Your task to perform on an android device: set the stopwatch Image 0: 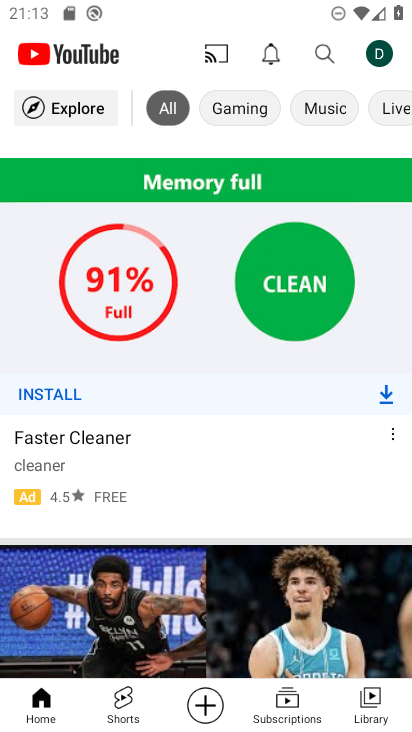
Step 0: press home button
Your task to perform on an android device: set the stopwatch Image 1: 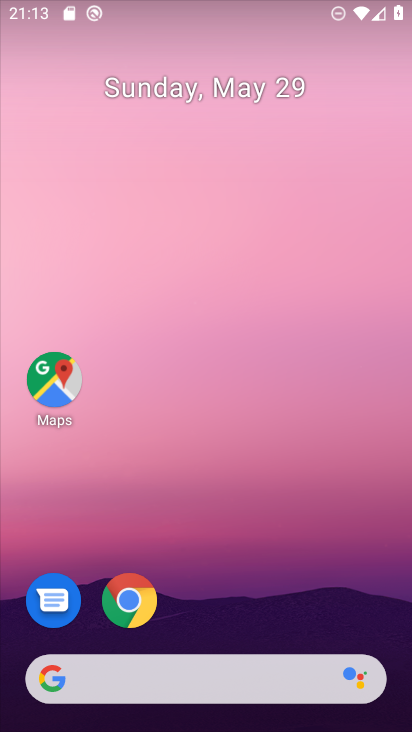
Step 1: drag from (327, 501) to (326, 107)
Your task to perform on an android device: set the stopwatch Image 2: 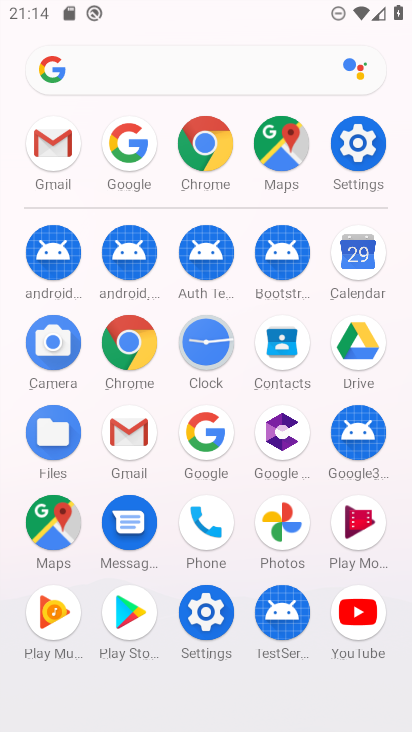
Step 2: click (210, 341)
Your task to perform on an android device: set the stopwatch Image 3: 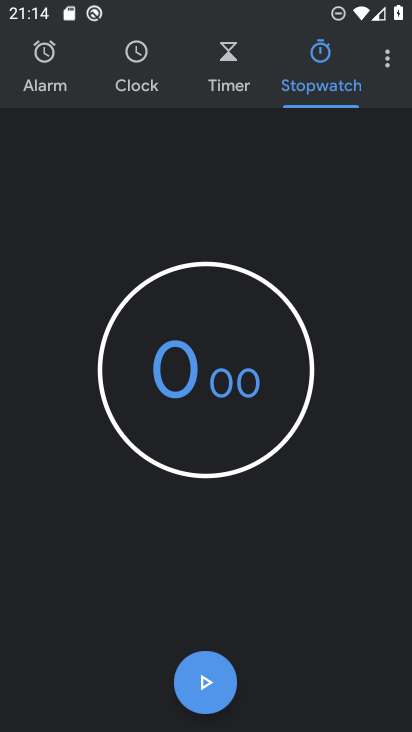
Step 3: click (209, 700)
Your task to perform on an android device: set the stopwatch Image 4: 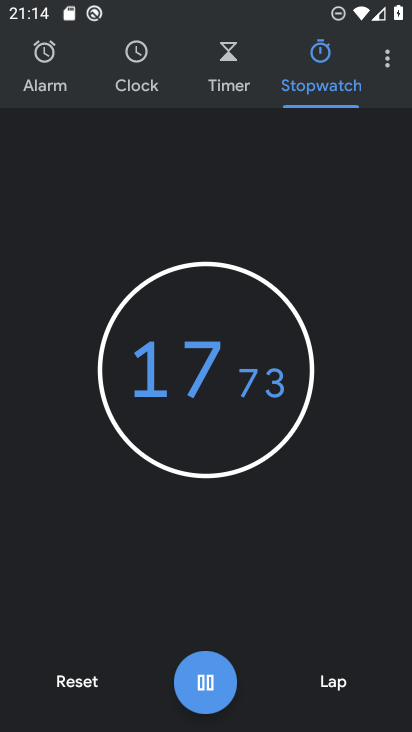
Step 4: click (217, 690)
Your task to perform on an android device: set the stopwatch Image 5: 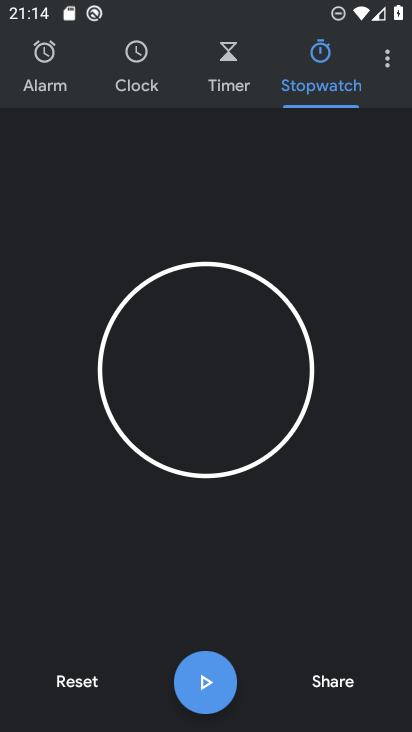
Step 5: task complete